Your task to perform on an android device: Search for sushi restaurants on Maps Image 0: 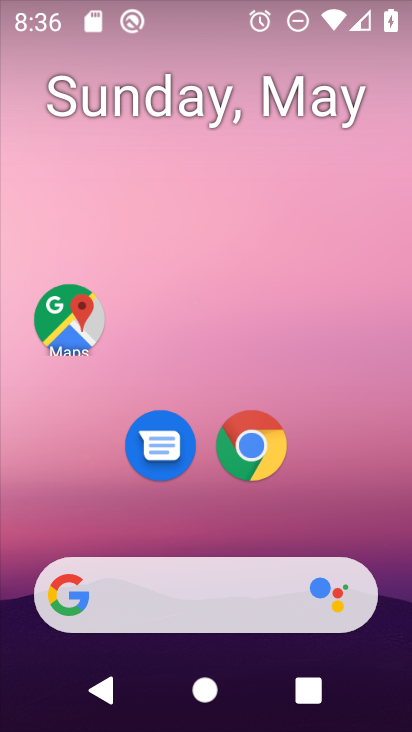
Step 0: drag from (267, 591) to (253, 0)
Your task to perform on an android device: Search for sushi restaurants on Maps Image 1: 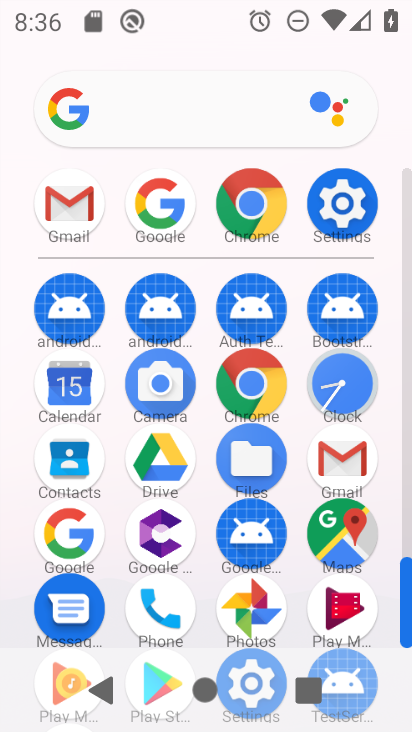
Step 1: click (350, 529)
Your task to perform on an android device: Search for sushi restaurants on Maps Image 2: 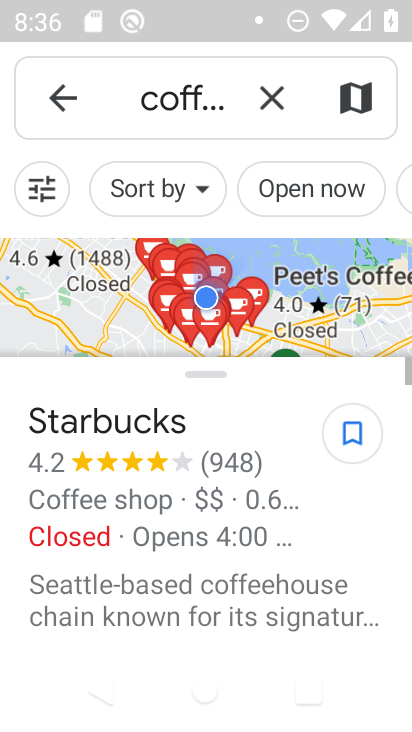
Step 2: click (263, 100)
Your task to perform on an android device: Search for sushi restaurants on Maps Image 3: 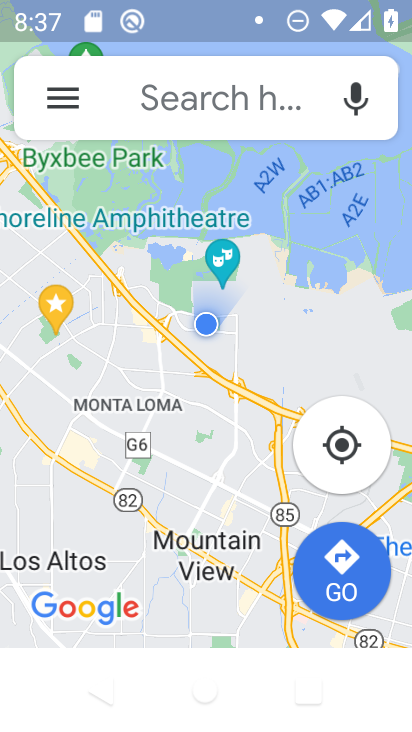
Step 3: click (217, 106)
Your task to perform on an android device: Search for sushi restaurants on Maps Image 4: 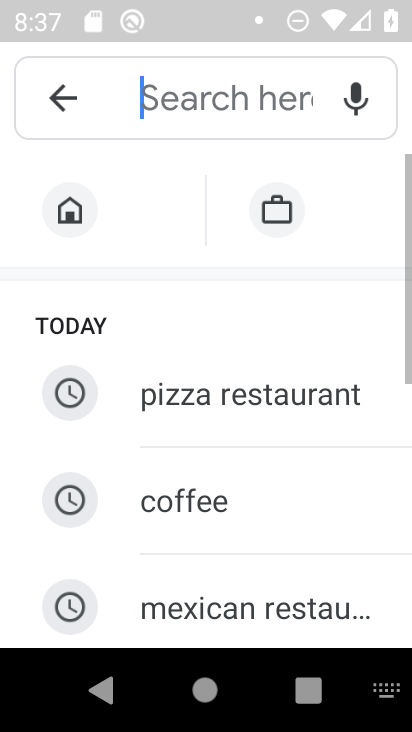
Step 4: drag from (265, 592) to (349, 127)
Your task to perform on an android device: Search for sushi restaurants on Maps Image 5: 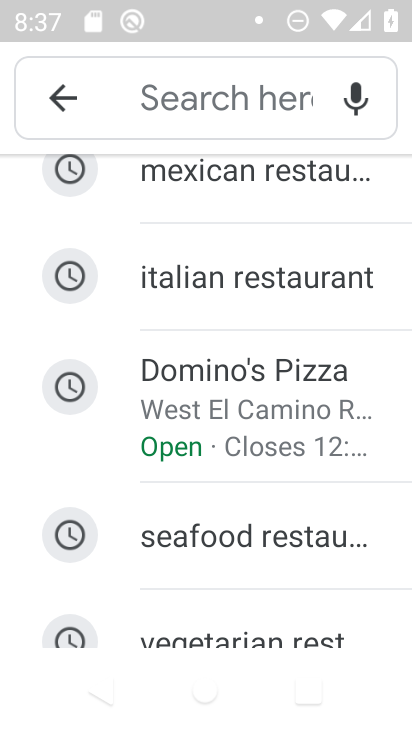
Step 5: drag from (250, 553) to (261, 179)
Your task to perform on an android device: Search for sushi restaurants on Maps Image 6: 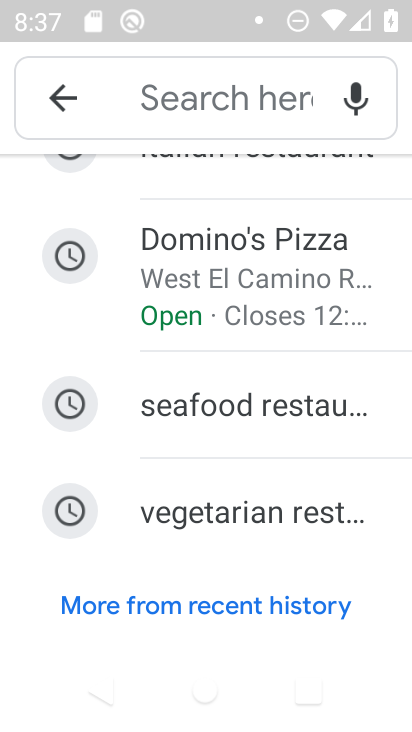
Step 6: click (241, 112)
Your task to perform on an android device: Search for sushi restaurants on Maps Image 7: 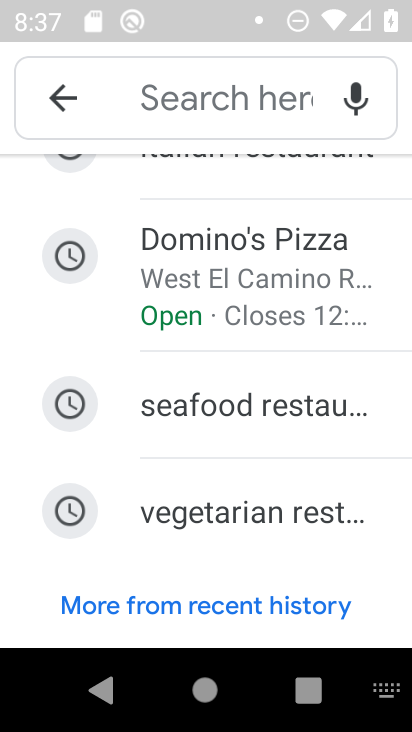
Step 7: type "sushi "
Your task to perform on an android device: Search for sushi restaurants on Maps Image 8: 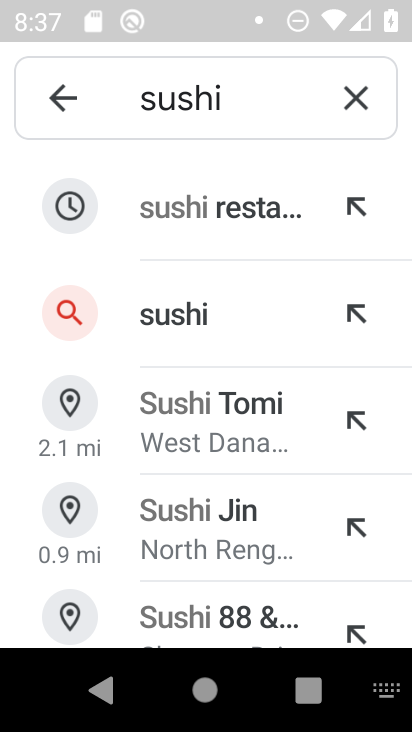
Step 8: click (280, 215)
Your task to perform on an android device: Search for sushi restaurants on Maps Image 9: 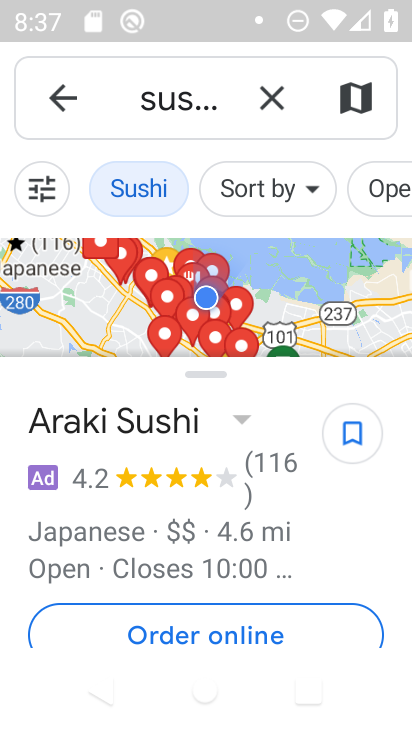
Step 9: task complete